Your task to perform on an android device: change text size in settings app Image 0: 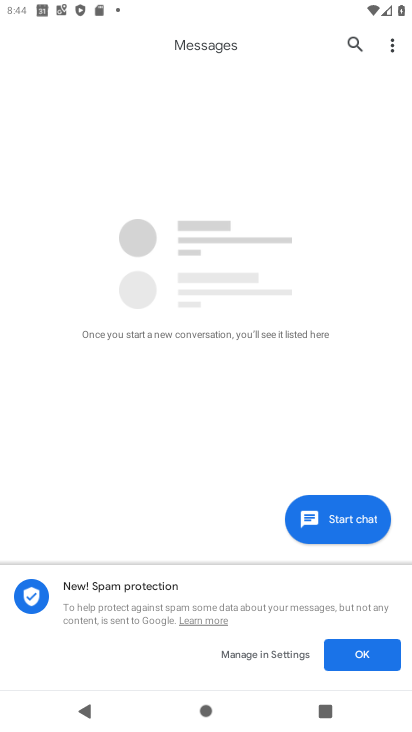
Step 0: press home button
Your task to perform on an android device: change text size in settings app Image 1: 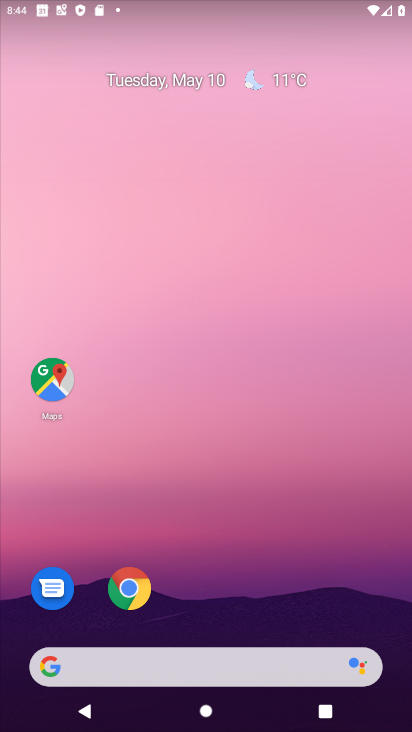
Step 1: drag from (251, 615) to (259, 19)
Your task to perform on an android device: change text size in settings app Image 2: 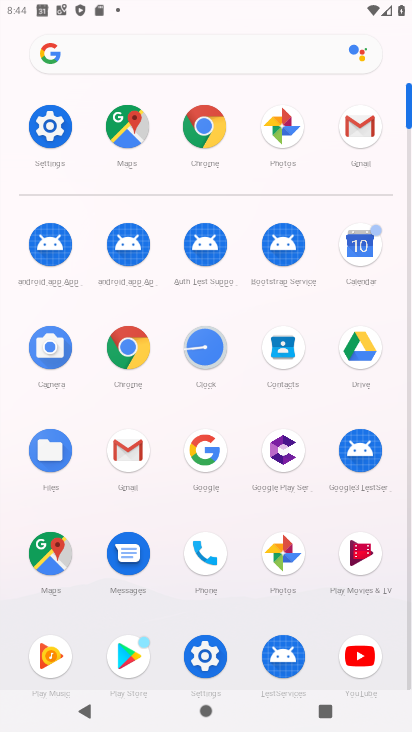
Step 2: click (213, 663)
Your task to perform on an android device: change text size in settings app Image 3: 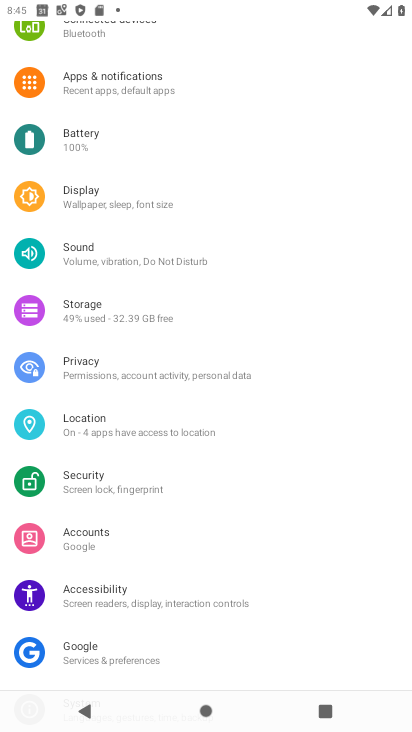
Step 3: click (106, 191)
Your task to perform on an android device: change text size in settings app Image 4: 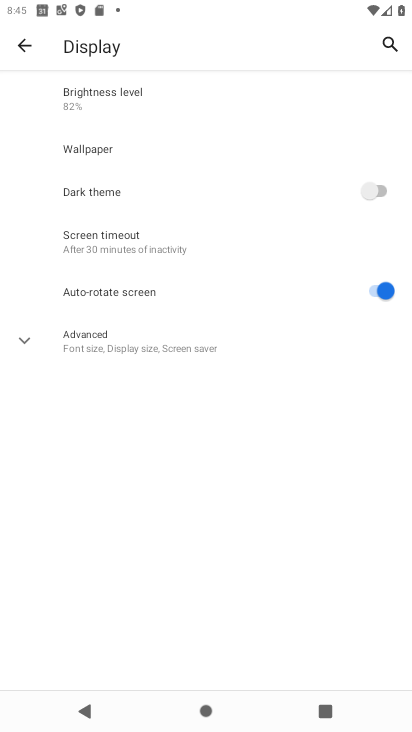
Step 4: click (175, 339)
Your task to perform on an android device: change text size in settings app Image 5: 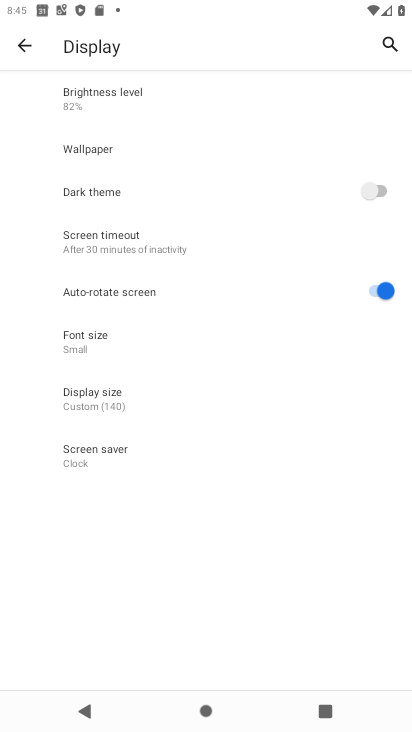
Step 5: click (166, 343)
Your task to perform on an android device: change text size in settings app Image 6: 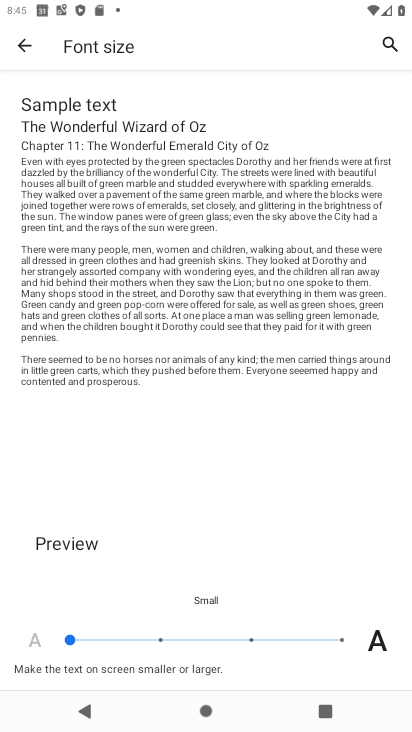
Step 6: click (340, 633)
Your task to perform on an android device: change text size in settings app Image 7: 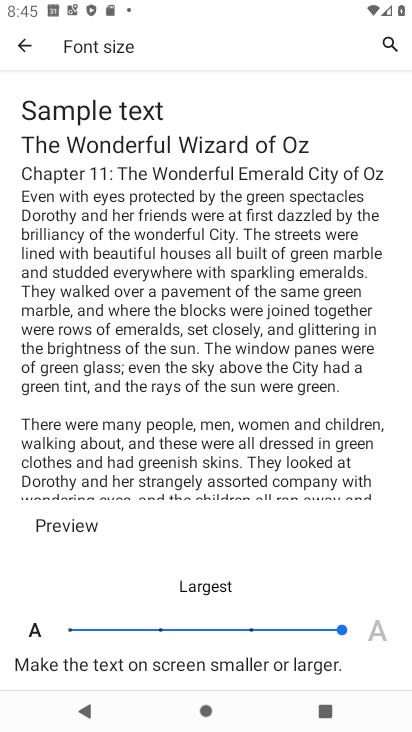
Step 7: task complete